Your task to perform on an android device: What's on my calendar today? Image 0: 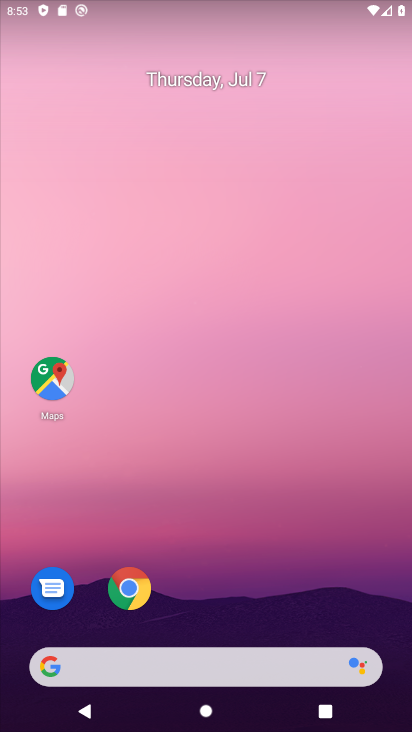
Step 0: click (50, 375)
Your task to perform on an android device: What's on my calendar today? Image 1: 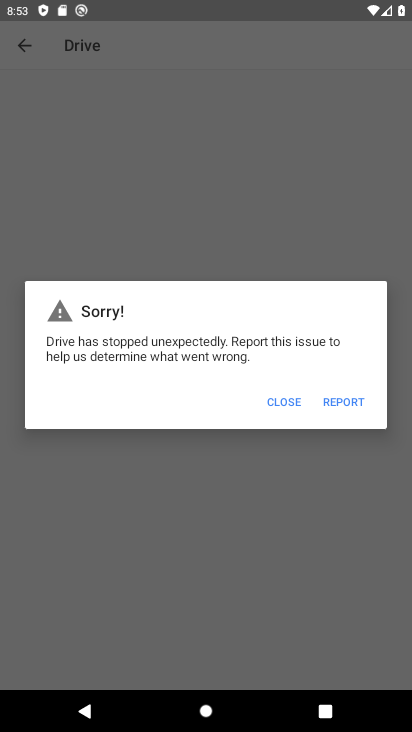
Step 1: press home button
Your task to perform on an android device: What's on my calendar today? Image 2: 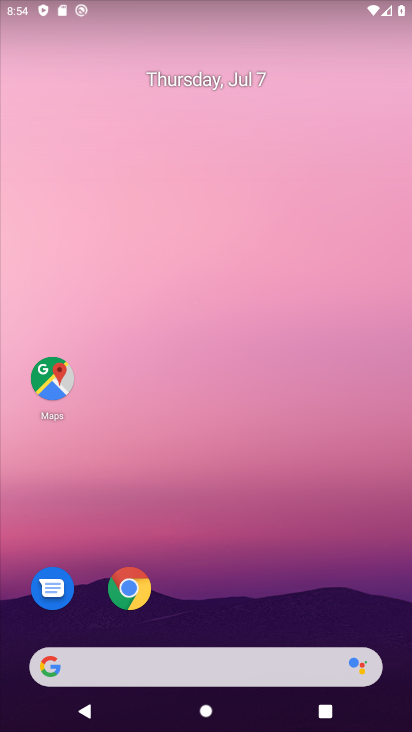
Step 2: drag from (227, 629) to (329, 43)
Your task to perform on an android device: What's on my calendar today? Image 3: 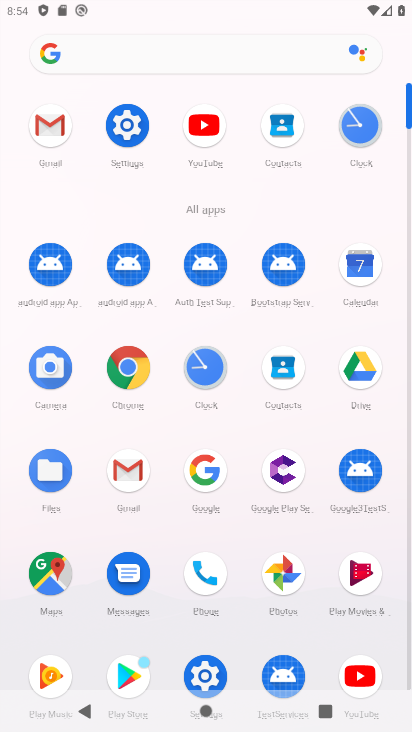
Step 3: click (356, 261)
Your task to perform on an android device: What's on my calendar today? Image 4: 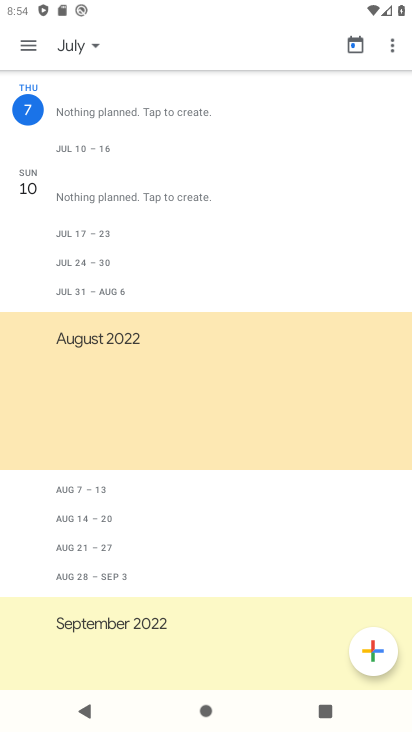
Step 4: click (95, 41)
Your task to perform on an android device: What's on my calendar today? Image 5: 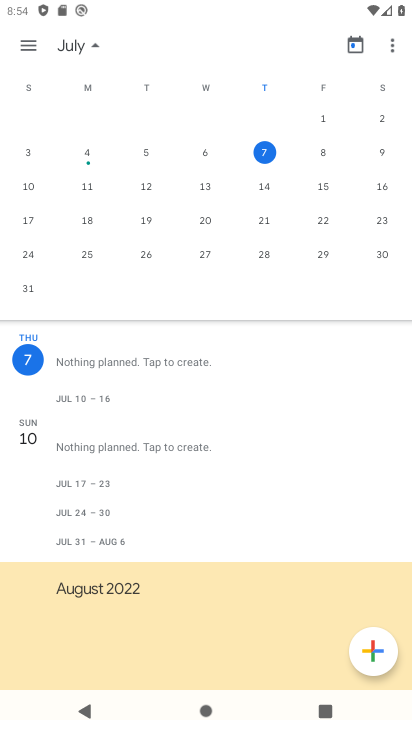
Step 5: click (264, 152)
Your task to perform on an android device: What's on my calendar today? Image 6: 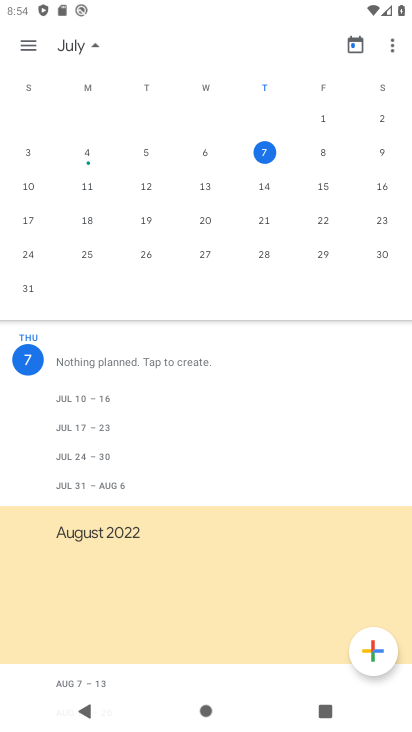
Step 6: click (30, 359)
Your task to perform on an android device: What's on my calendar today? Image 7: 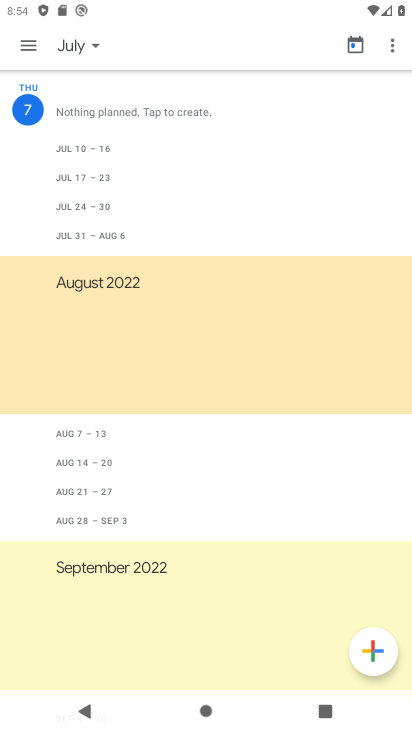
Step 7: click (32, 104)
Your task to perform on an android device: What's on my calendar today? Image 8: 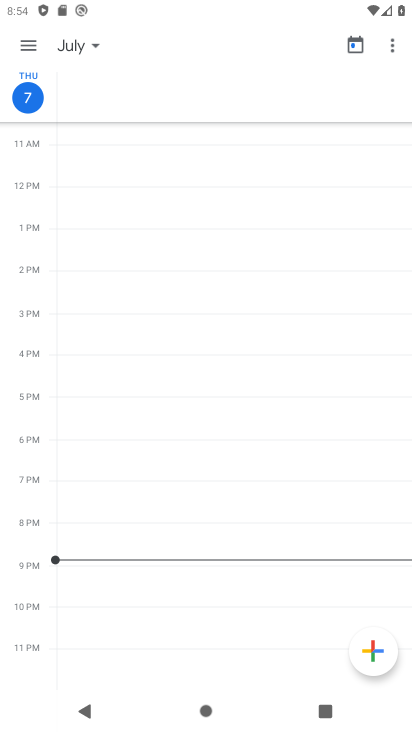
Step 8: task complete